Your task to perform on an android device: toggle sleep mode Image 0: 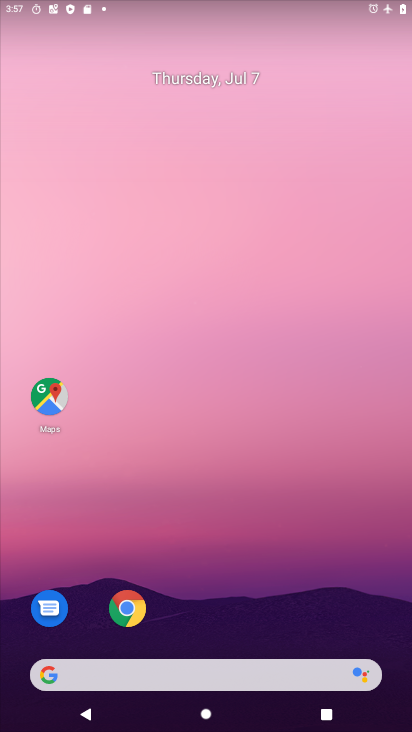
Step 0: drag from (246, 725) to (251, 93)
Your task to perform on an android device: toggle sleep mode Image 1: 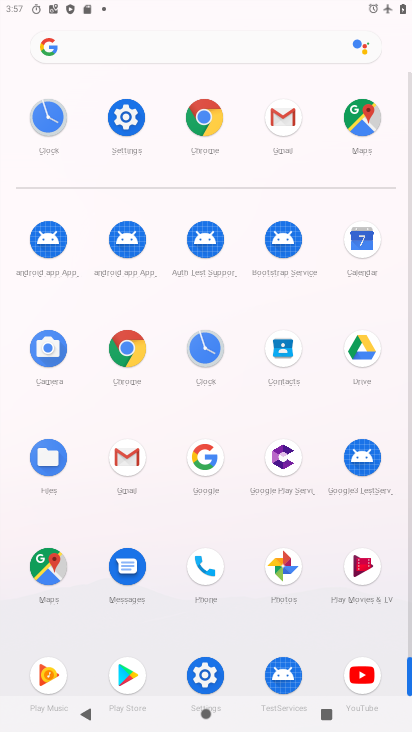
Step 1: click (133, 123)
Your task to perform on an android device: toggle sleep mode Image 2: 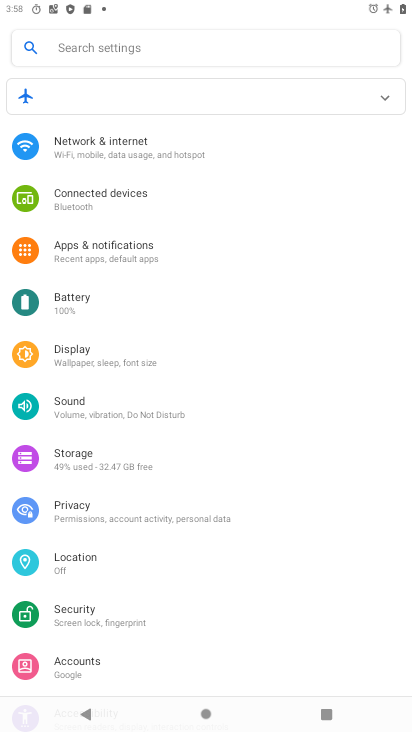
Step 2: click (72, 361)
Your task to perform on an android device: toggle sleep mode Image 3: 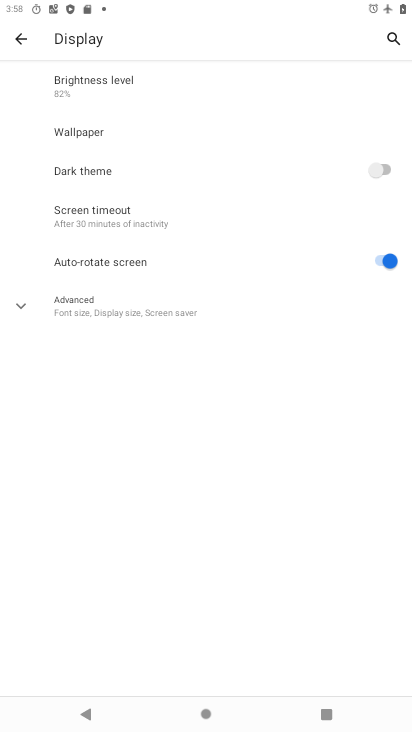
Step 3: task complete